Your task to perform on an android device: install app "Booking.com: Hotels and more" Image 0: 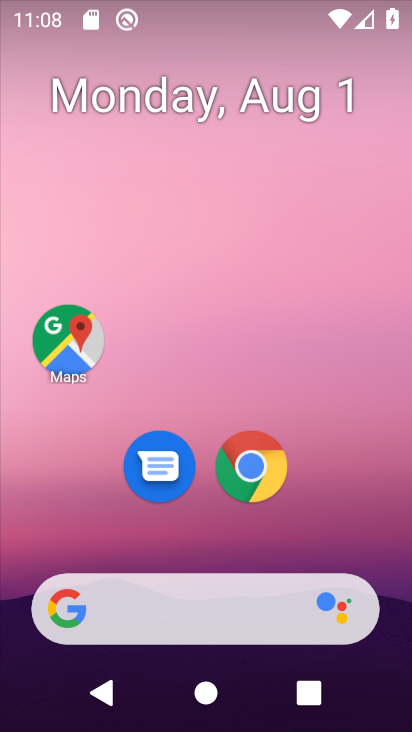
Step 0: drag from (245, 724) to (261, 74)
Your task to perform on an android device: install app "Booking.com: Hotels and more" Image 1: 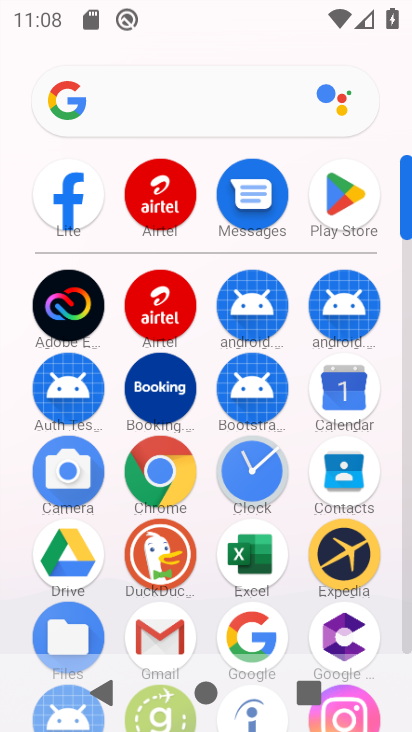
Step 1: click (352, 203)
Your task to perform on an android device: install app "Booking.com: Hotels and more" Image 2: 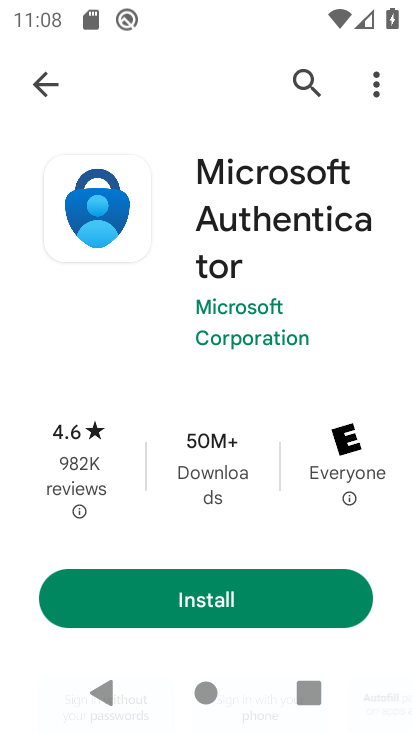
Step 2: click (301, 76)
Your task to perform on an android device: install app "Booking.com: Hotels and more" Image 3: 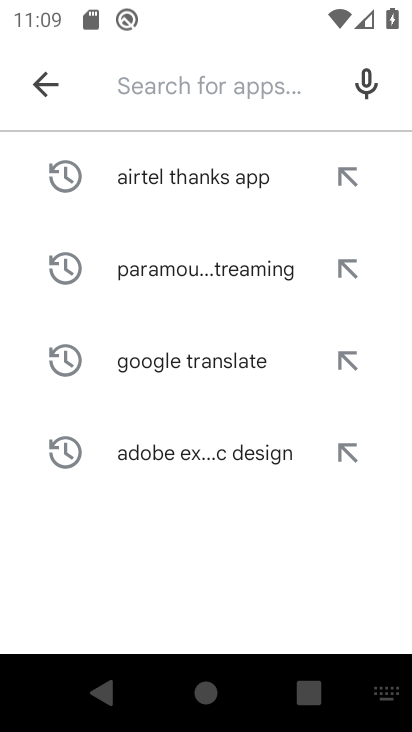
Step 3: type "Booking.com: Hotels and more"
Your task to perform on an android device: install app "Booking.com: Hotels and more" Image 4: 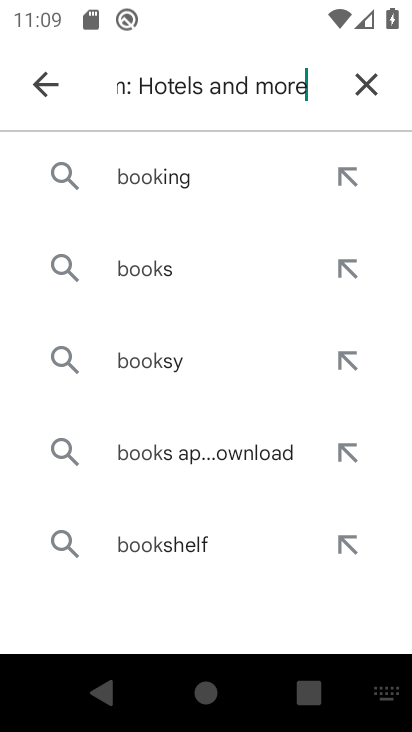
Step 4: type ""
Your task to perform on an android device: install app "Booking.com: Hotels and more" Image 5: 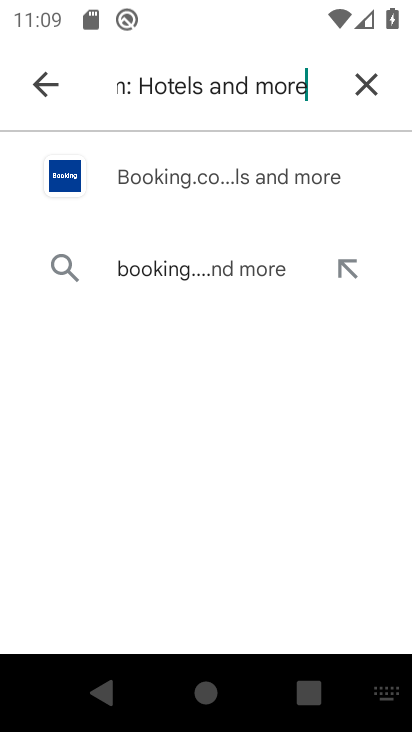
Step 5: click (168, 179)
Your task to perform on an android device: install app "Booking.com: Hotels and more" Image 6: 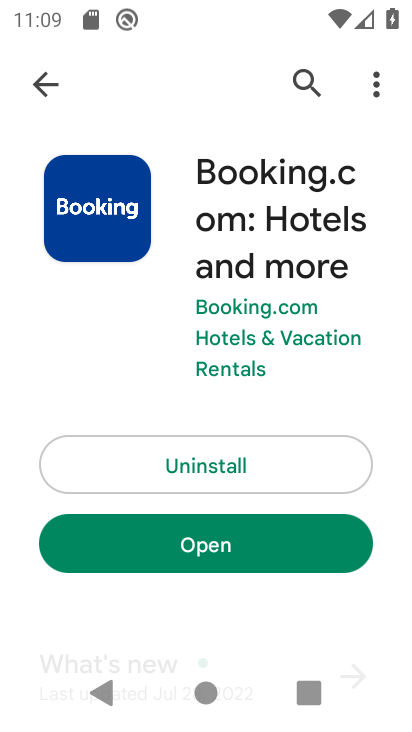
Step 6: task complete